Your task to perform on an android device: Do I have any events tomorrow? Image 0: 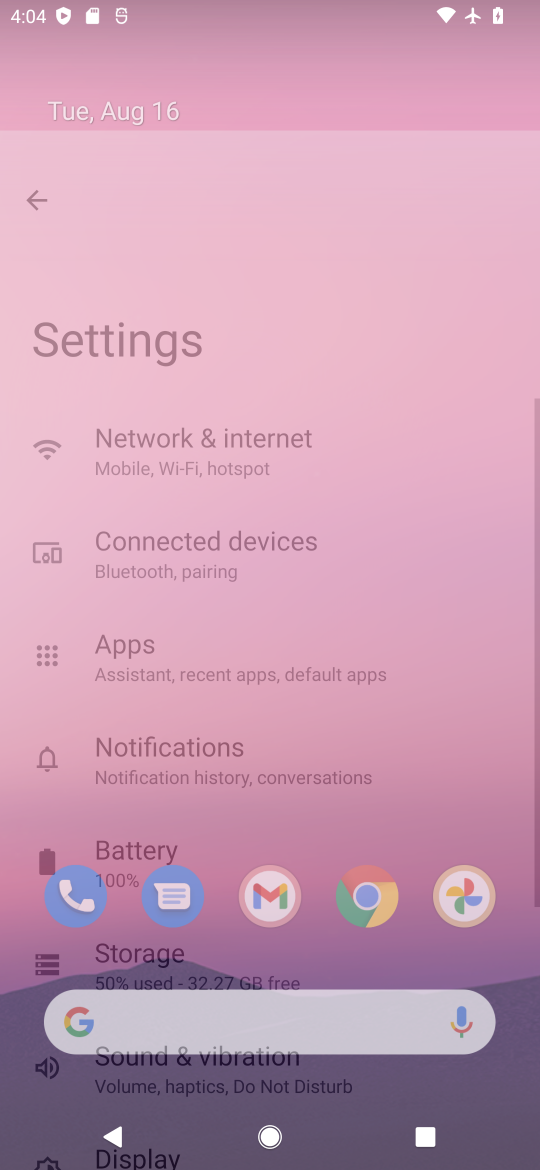
Step 0: press home button
Your task to perform on an android device: Do I have any events tomorrow? Image 1: 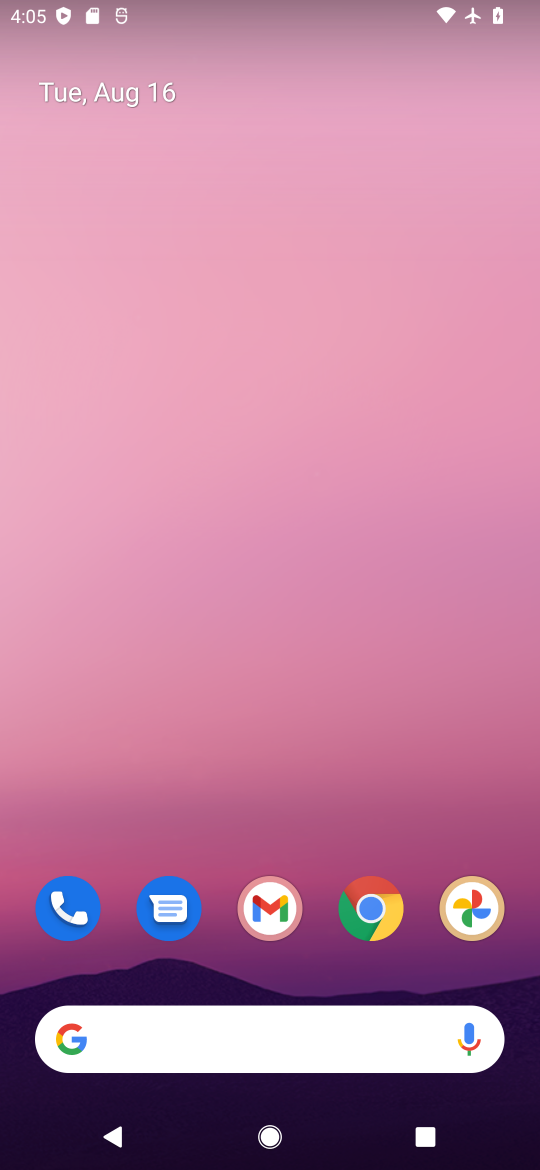
Step 1: drag from (6, 613) to (534, 591)
Your task to perform on an android device: Do I have any events tomorrow? Image 2: 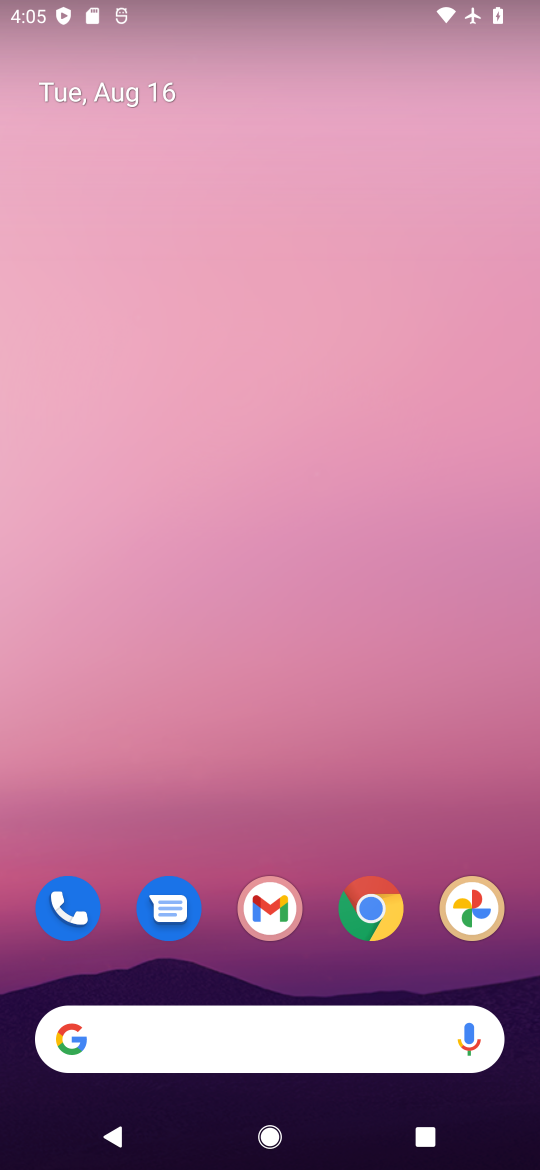
Step 2: drag from (315, 861) to (342, 12)
Your task to perform on an android device: Do I have any events tomorrow? Image 3: 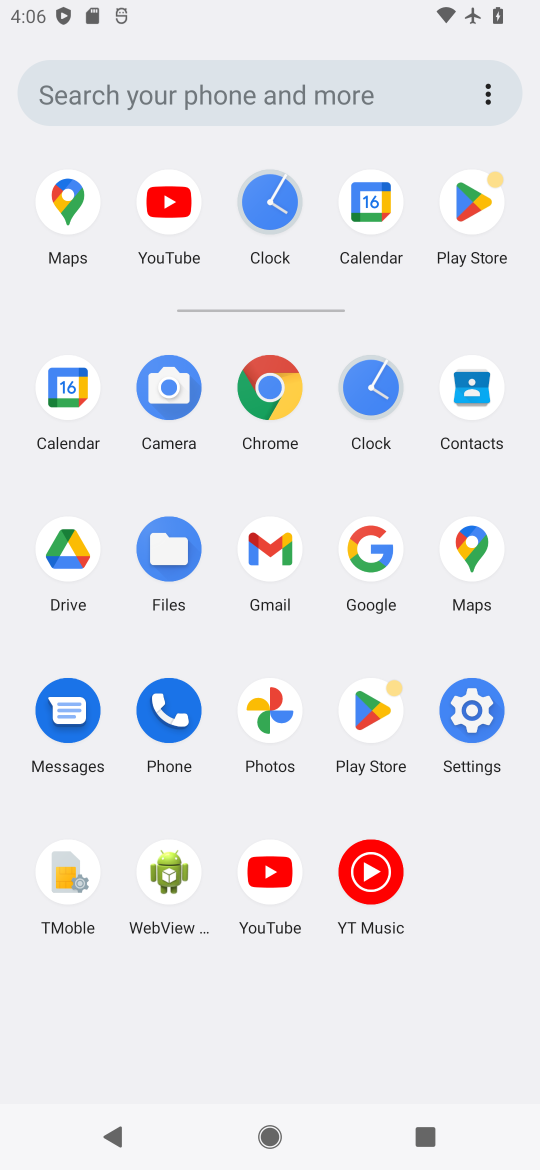
Step 3: click (69, 378)
Your task to perform on an android device: Do I have any events tomorrow? Image 4: 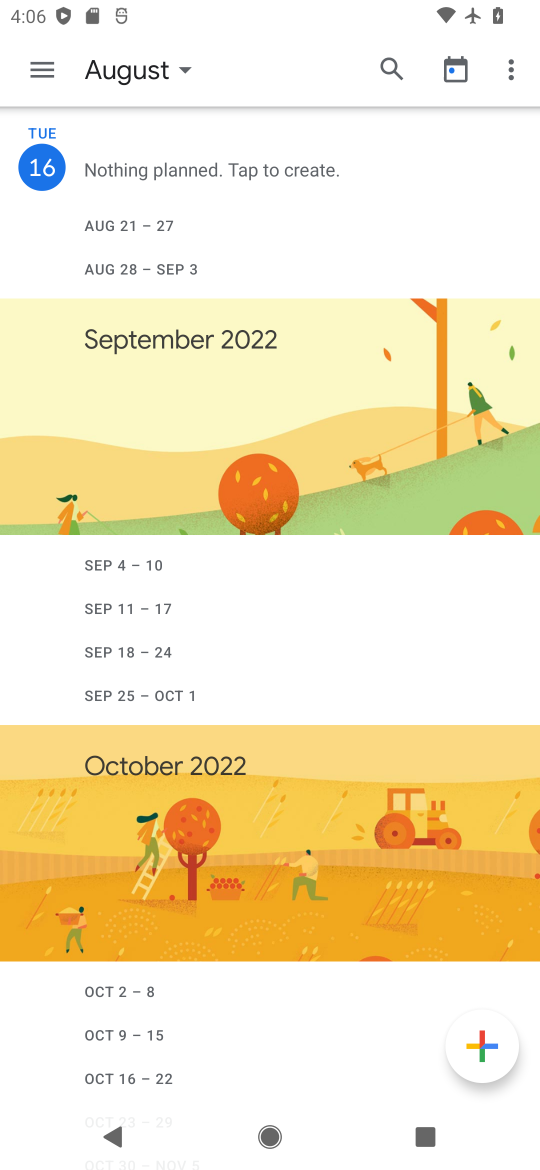
Step 4: click (48, 61)
Your task to perform on an android device: Do I have any events tomorrow? Image 5: 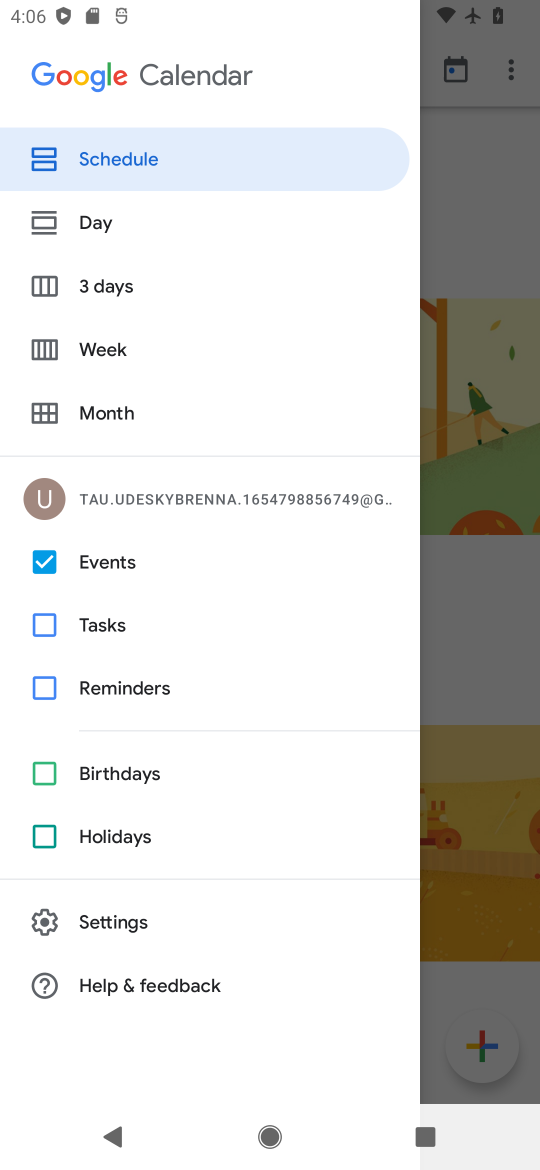
Step 5: click (88, 218)
Your task to perform on an android device: Do I have any events tomorrow? Image 6: 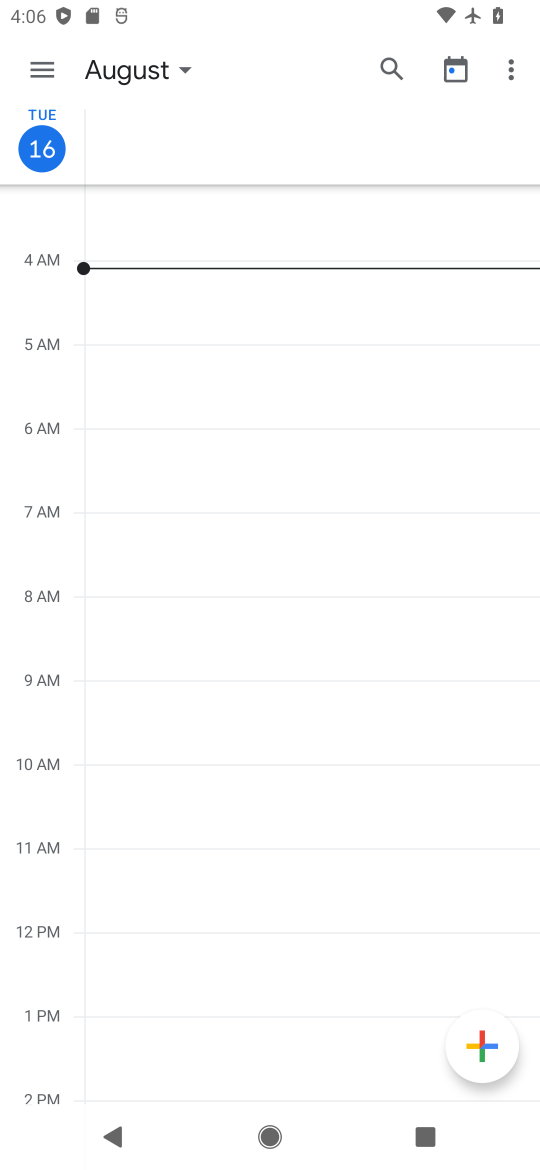
Step 6: click (181, 65)
Your task to perform on an android device: Do I have any events tomorrow? Image 7: 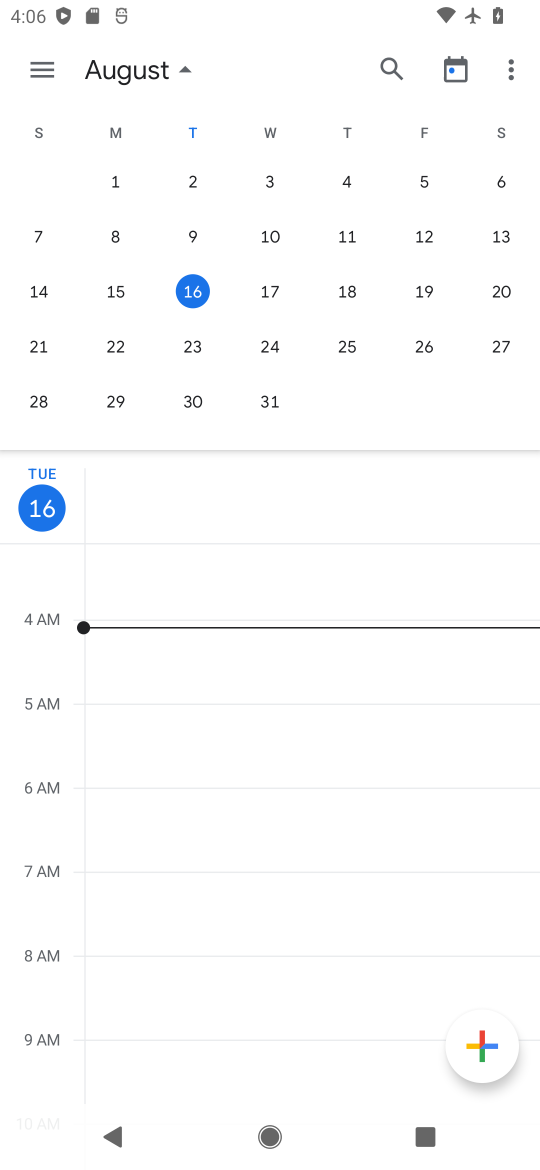
Step 7: click (270, 281)
Your task to perform on an android device: Do I have any events tomorrow? Image 8: 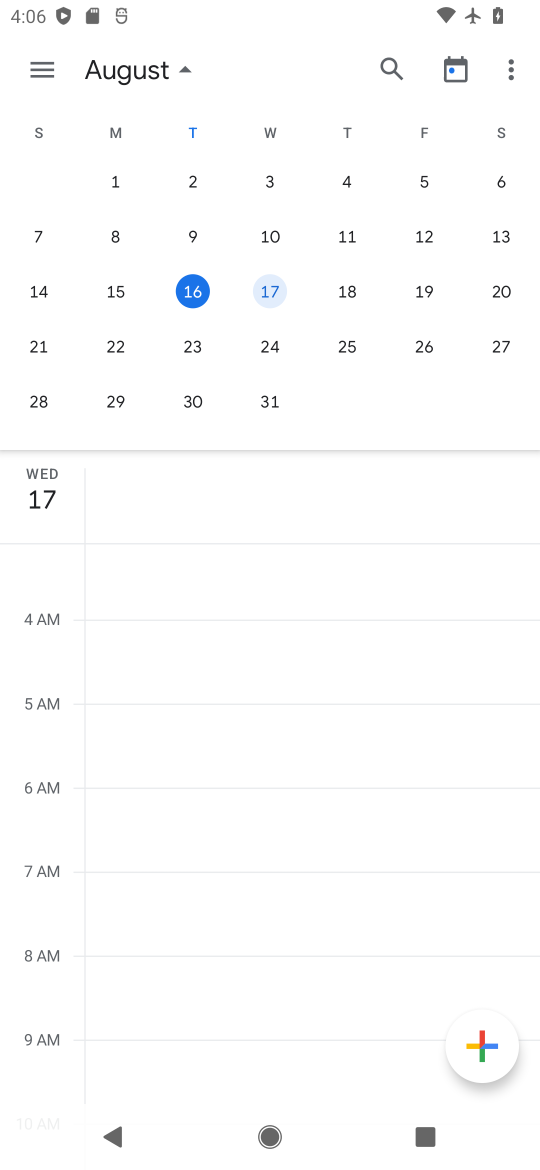
Step 8: click (194, 59)
Your task to perform on an android device: Do I have any events tomorrow? Image 9: 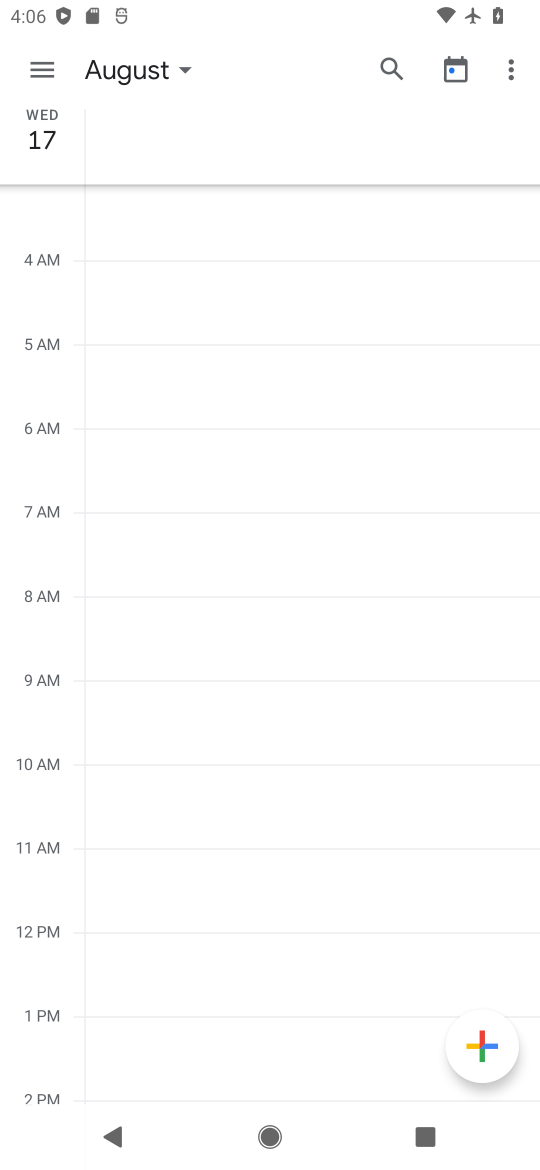
Step 9: task complete